Your task to perform on an android device: search for starred emails in the gmail app Image 0: 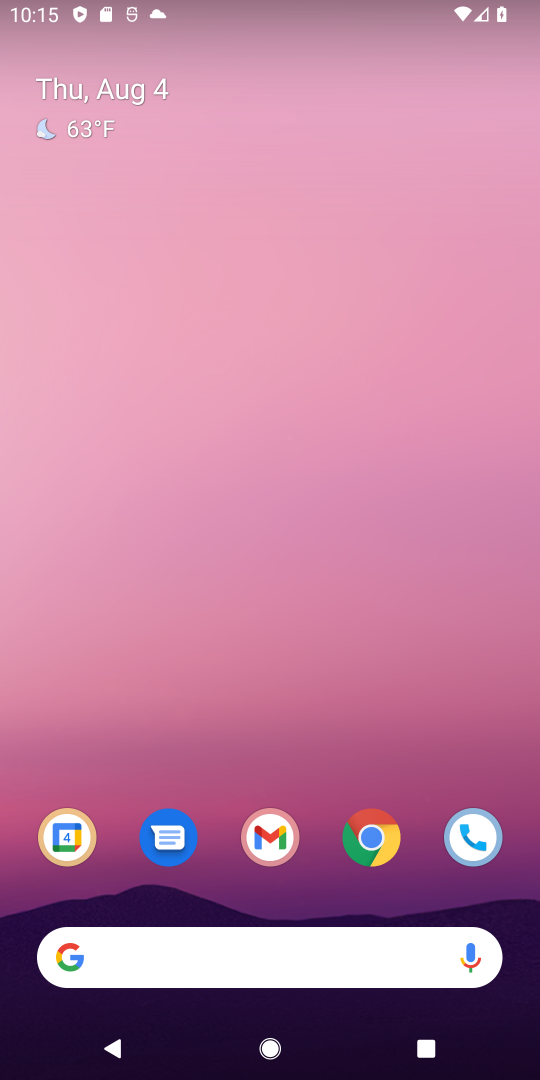
Step 0: click (265, 831)
Your task to perform on an android device: search for starred emails in the gmail app Image 1: 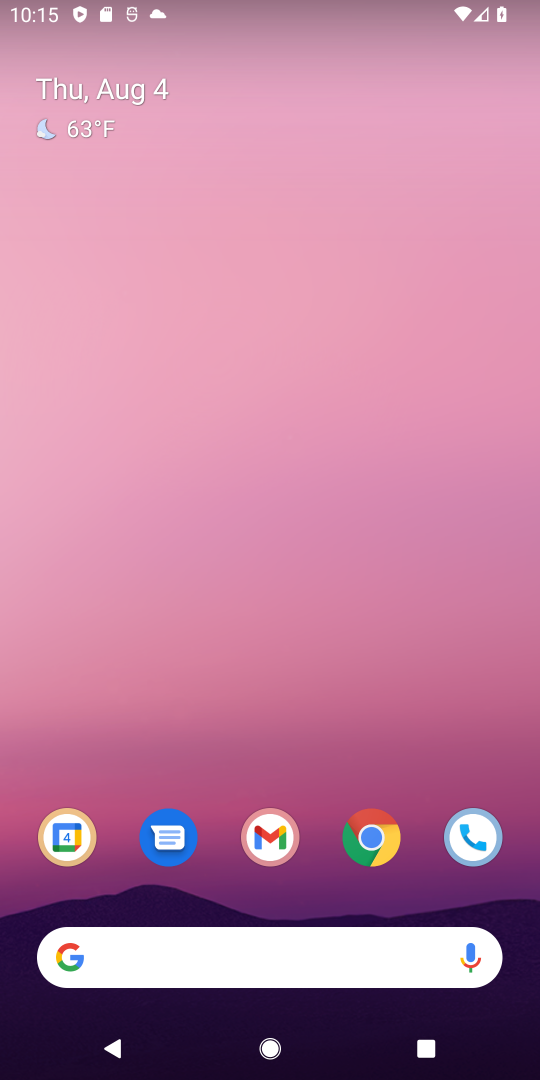
Step 1: click (268, 827)
Your task to perform on an android device: search for starred emails in the gmail app Image 2: 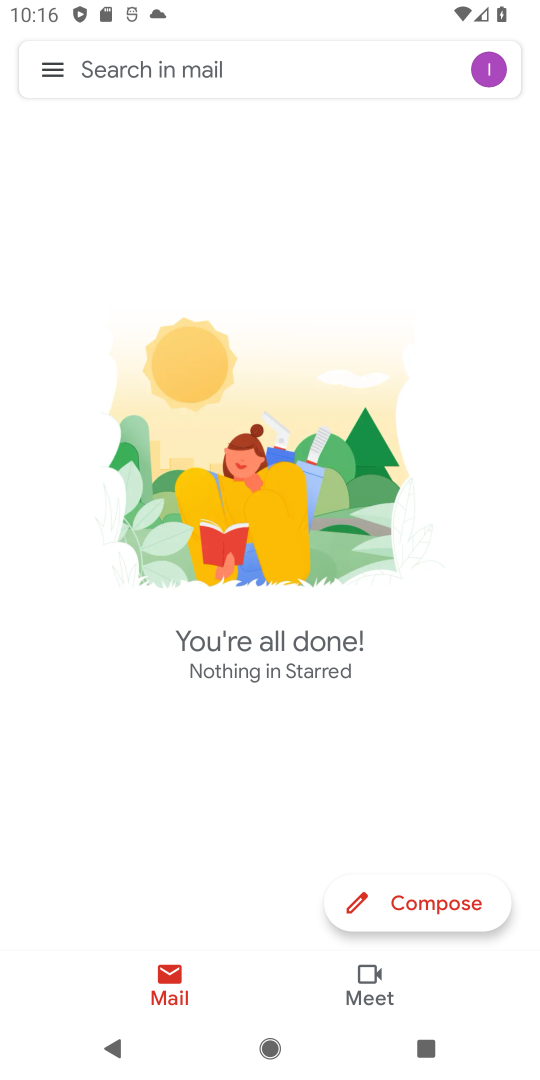
Step 2: click (47, 65)
Your task to perform on an android device: search for starred emails in the gmail app Image 3: 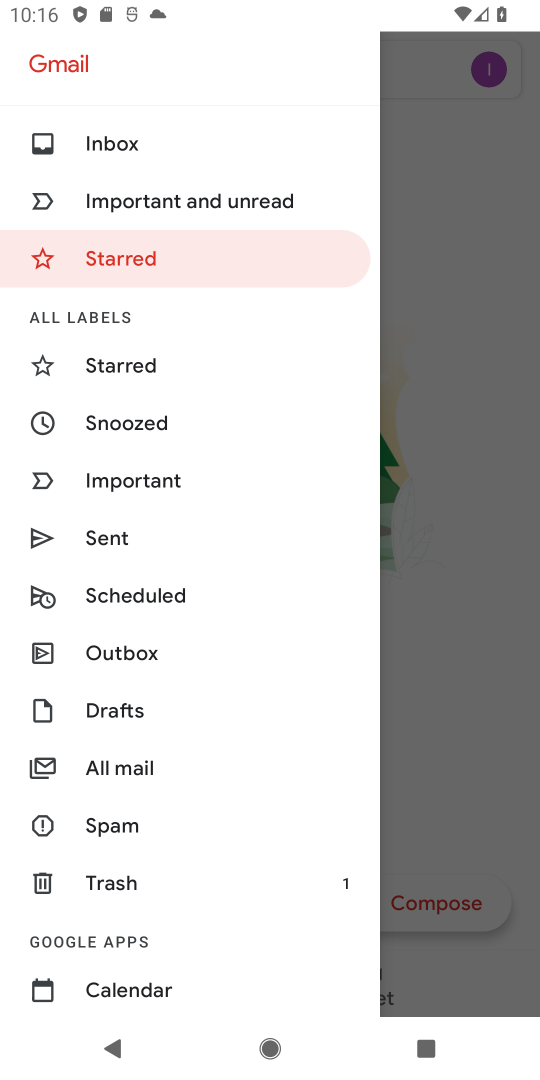
Step 3: click (170, 354)
Your task to perform on an android device: search for starred emails in the gmail app Image 4: 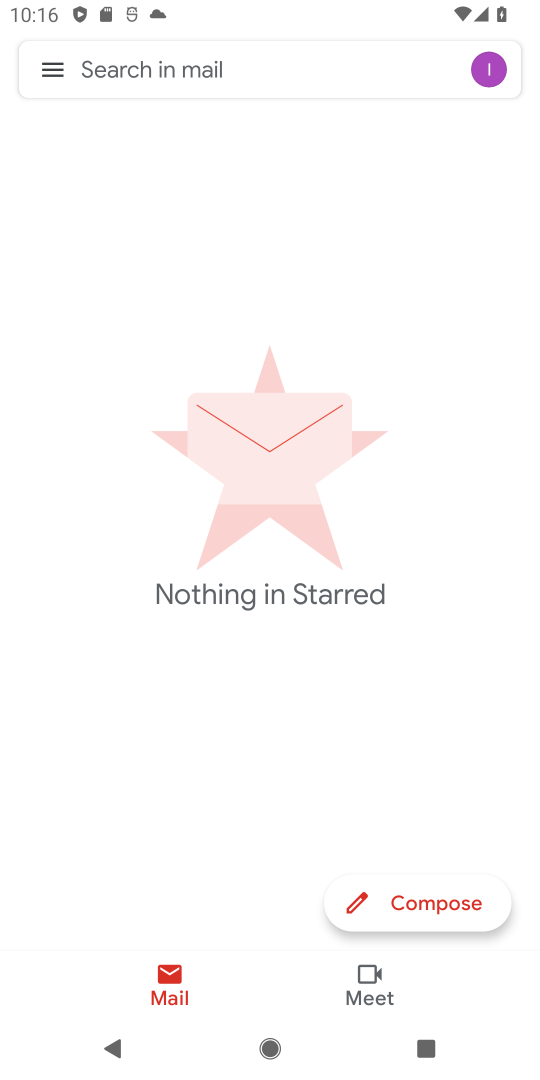
Step 4: task complete